Your task to perform on an android device: Open Google Chrome and open the bookmarks view Image 0: 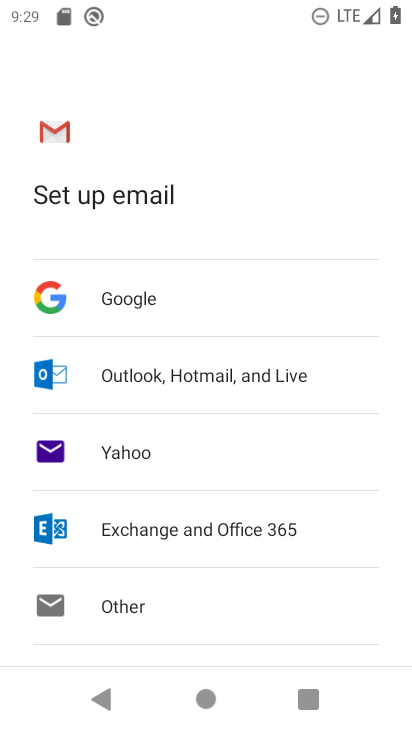
Step 0: press home button
Your task to perform on an android device: Open Google Chrome and open the bookmarks view Image 1: 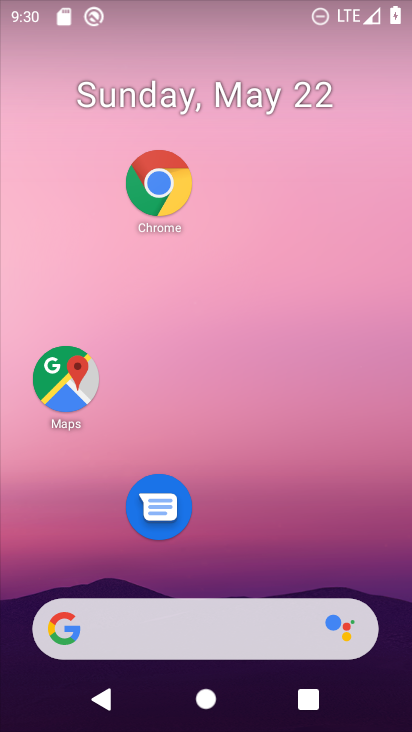
Step 1: click (175, 197)
Your task to perform on an android device: Open Google Chrome and open the bookmarks view Image 2: 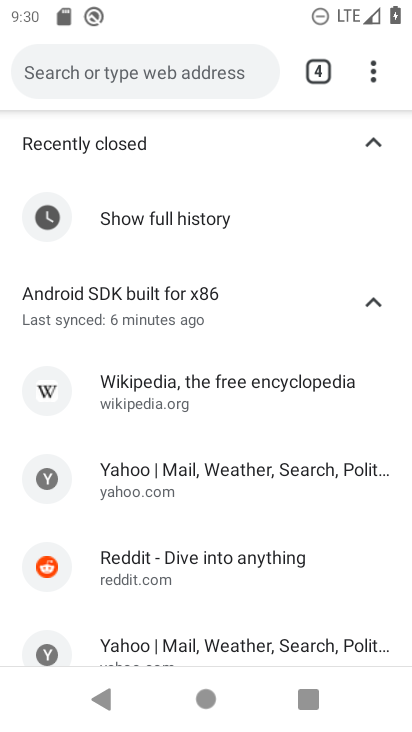
Step 2: task complete